Your task to perform on an android device: Show the shopping cart on ebay. Add lenovo thinkpad to the cart on ebay, then select checkout. Image 0: 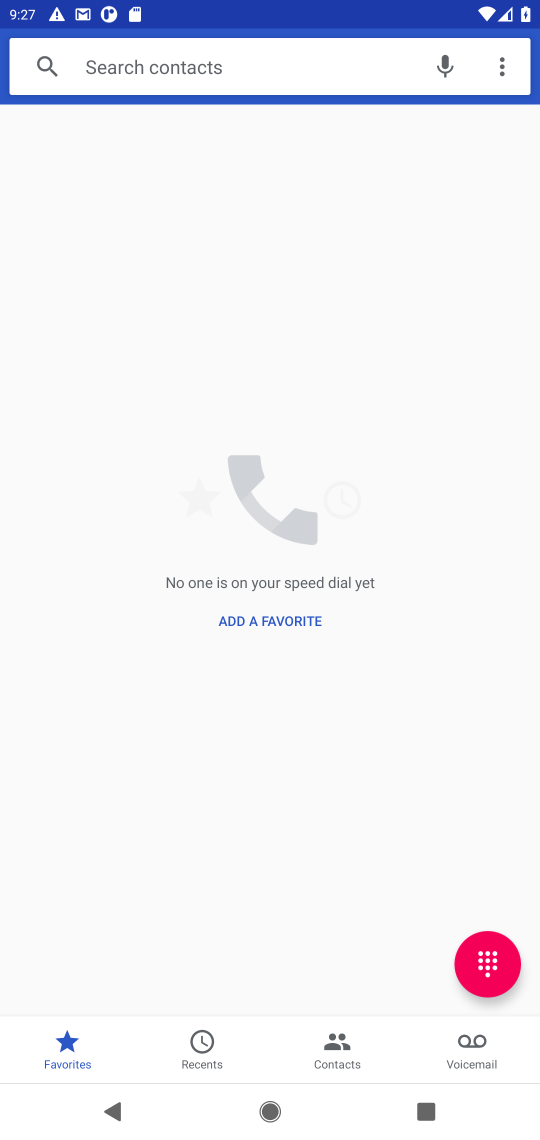
Step 0: press home button
Your task to perform on an android device: Show the shopping cart on ebay. Add lenovo thinkpad to the cart on ebay, then select checkout. Image 1: 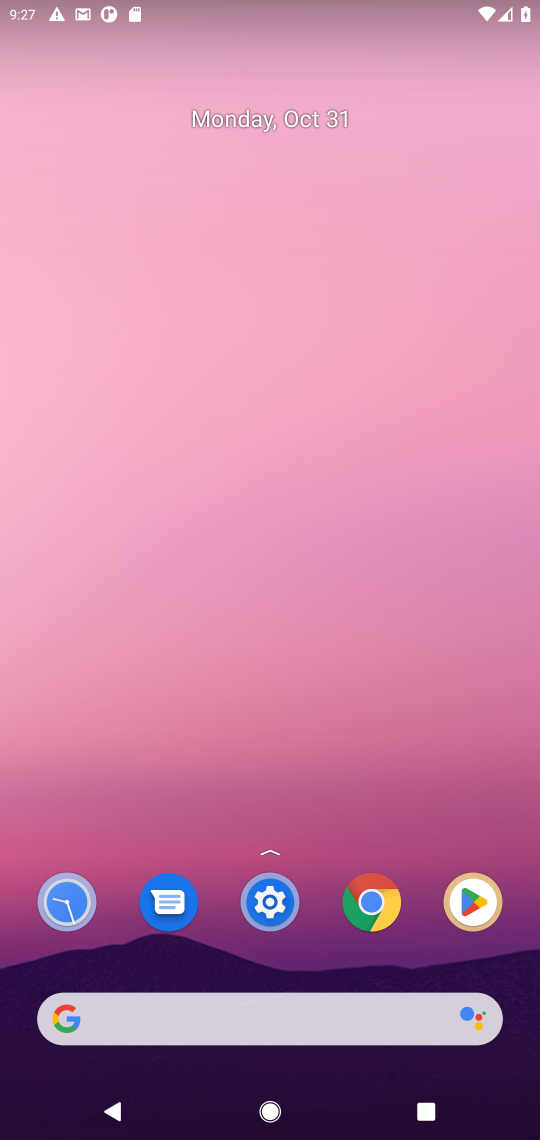
Step 1: drag from (200, 241) to (188, 174)
Your task to perform on an android device: Show the shopping cart on ebay. Add lenovo thinkpad to the cart on ebay, then select checkout. Image 2: 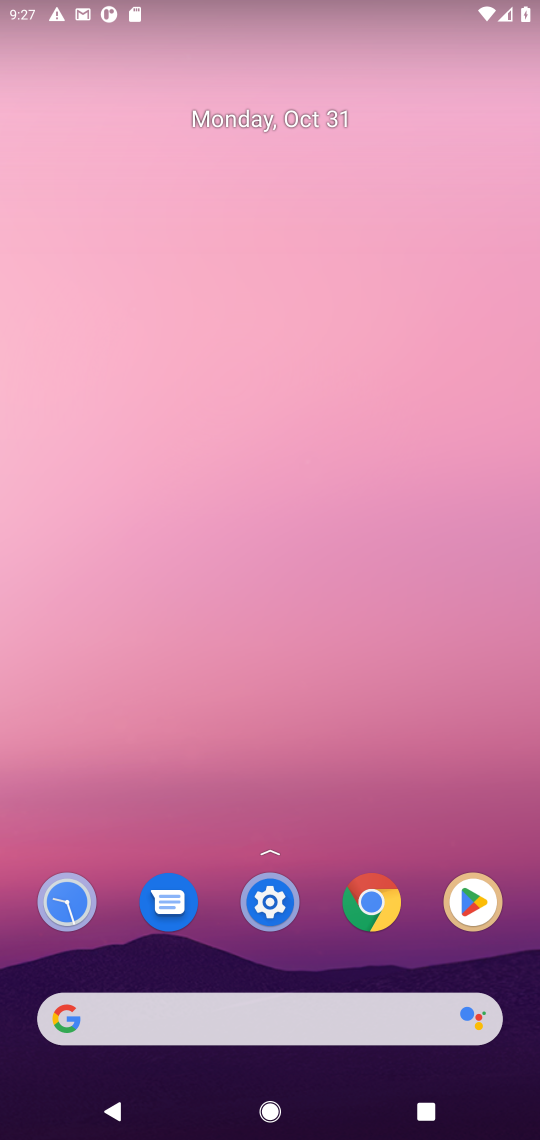
Step 2: drag from (328, 958) to (350, 147)
Your task to perform on an android device: Show the shopping cart on ebay. Add lenovo thinkpad to the cart on ebay, then select checkout. Image 3: 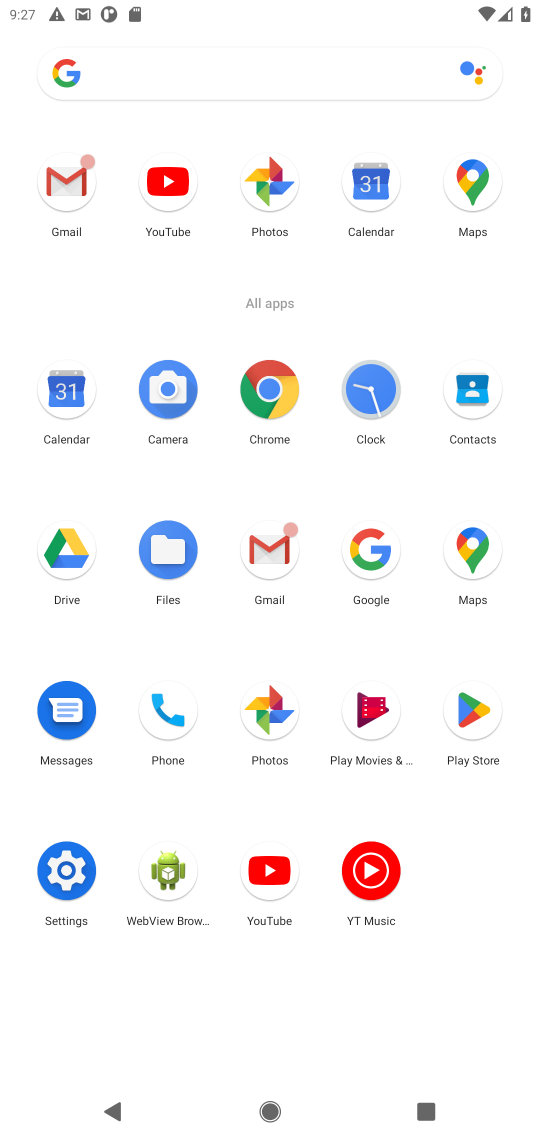
Step 3: click (267, 385)
Your task to perform on an android device: Show the shopping cart on ebay. Add lenovo thinkpad to the cart on ebay, then select checkout. Image 4: 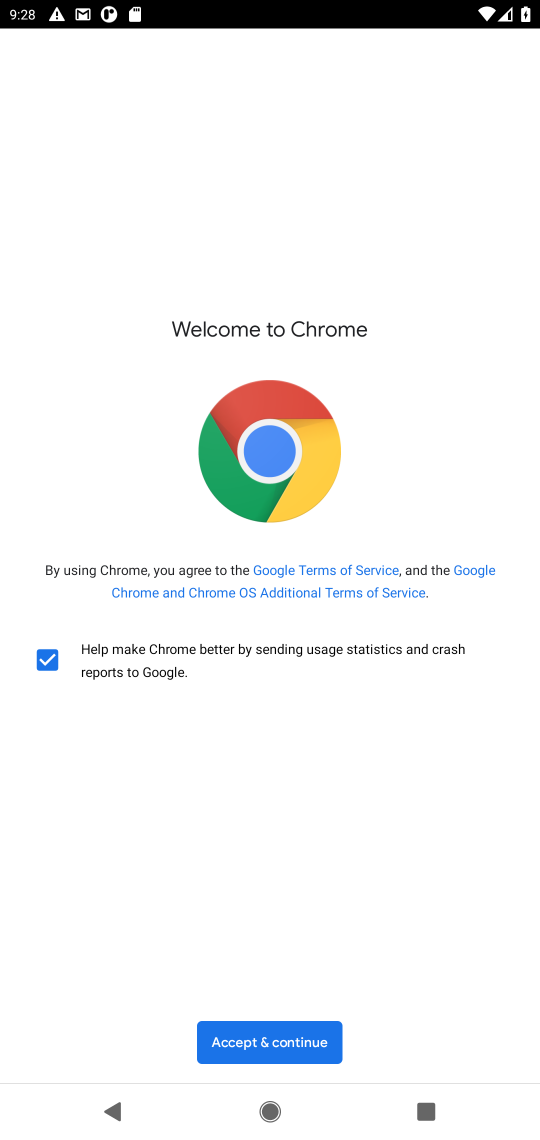
Step 4: click (306, 1039)
Your task to perform on an android device: Show the shopping cart on ebay. Add lenovo thinkpad to the cart on ebay, then select checkout. Image 5: 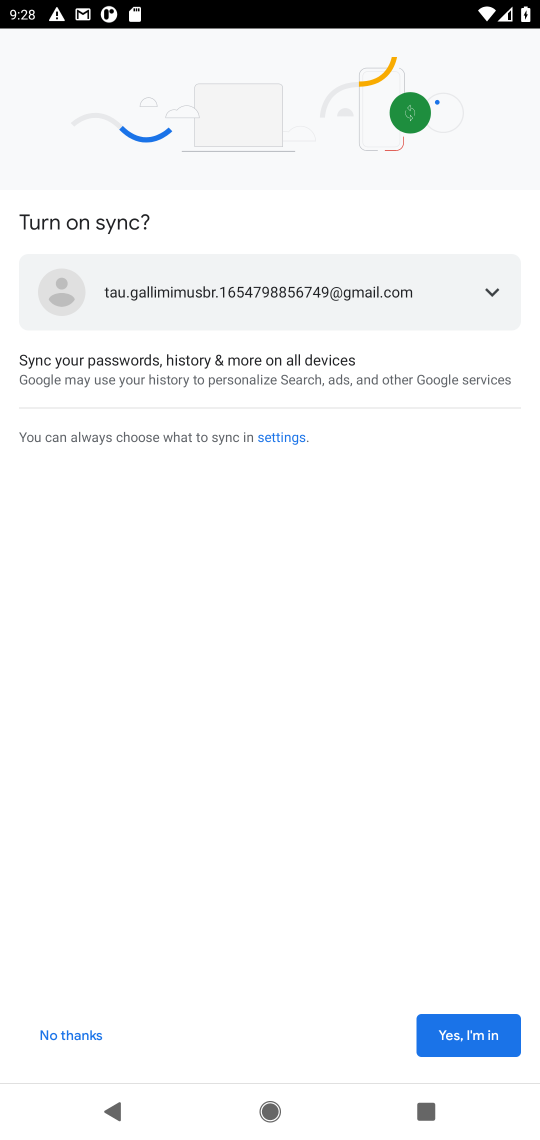
Step 5: click (507, 1039)
Your task to perform on an android device: Show the shopping cart on ebay. Add lenovo thinkpad to the cart on ebay, then select checkout. Image 6: 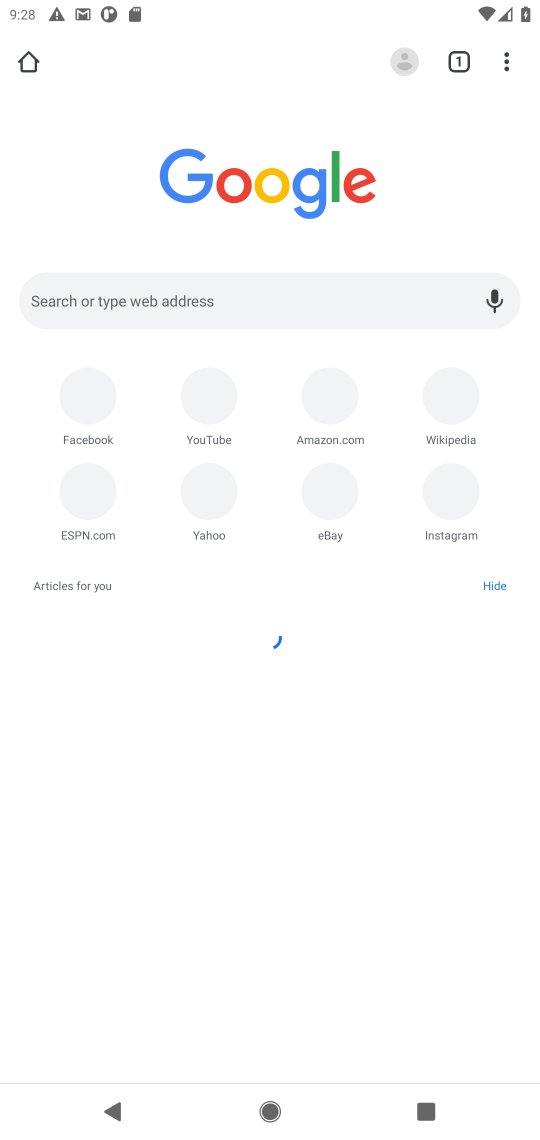
Step 6: click (292, 293)
Your task to perform on an android device: Show the shopping cart on ebay. Add lenovo thinkpad to the cart on ebay, then select checkout. Image 7: 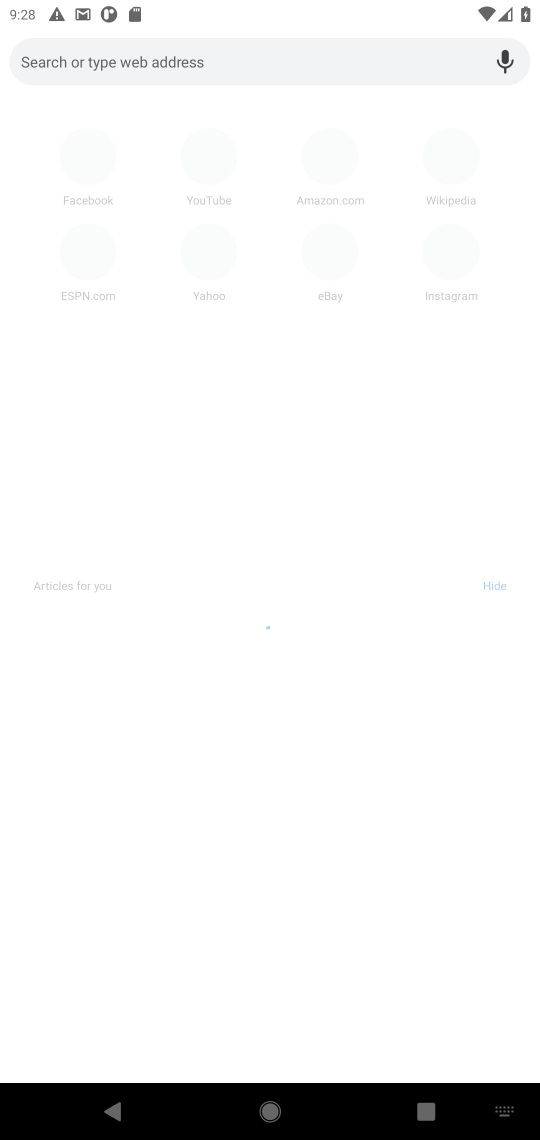
Step 7: type "ebay.com"
Your task to perform on an android device: Show the shopping cart on ebay. Add lenovo thinkpad to the cart on ebay, then select checkout. Image 8: 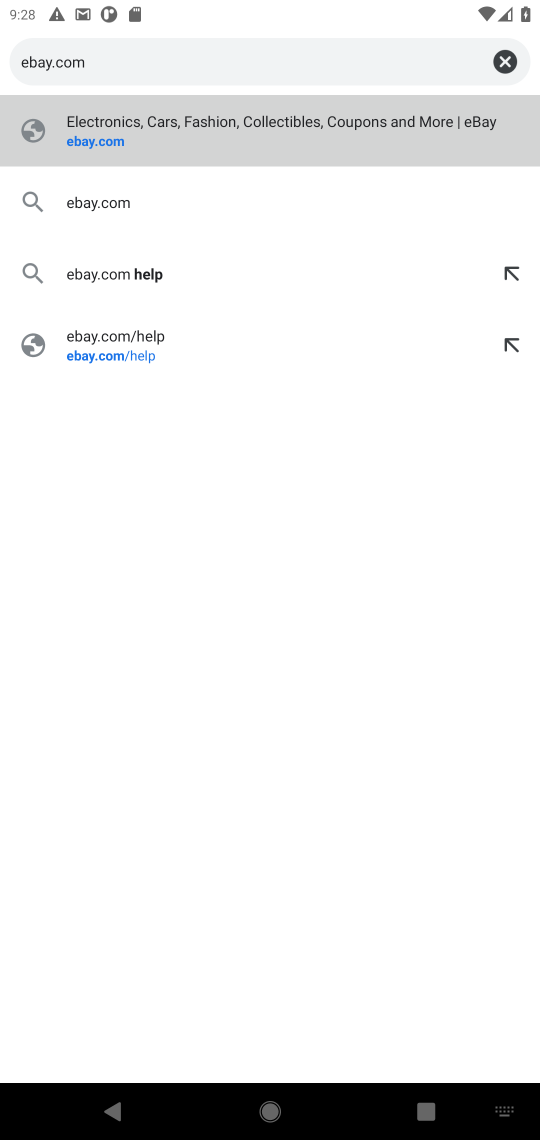
Step 8: press enter
Your task to perform on an android device: Show the shopping cart on ebay. Add lenovo thinkpad to the cart on ebay, then select checkout. Image 9: 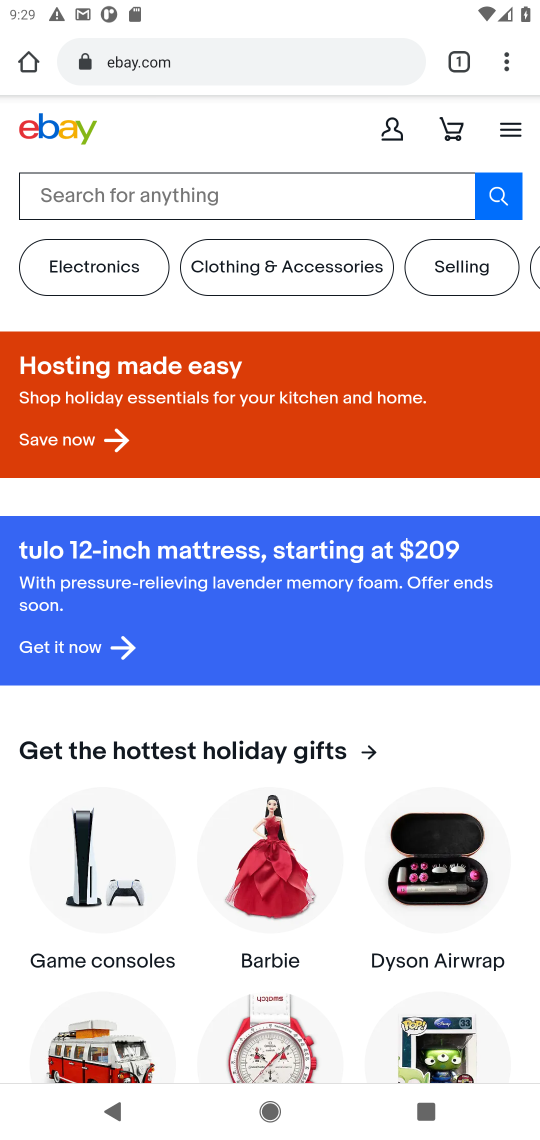
Step 9: click (206, 196)
Your task to perform on an android device: Show the shopping cart on ebay. Add lenovo thinkpad to the cart on ebay, then select checkout. Image 10: 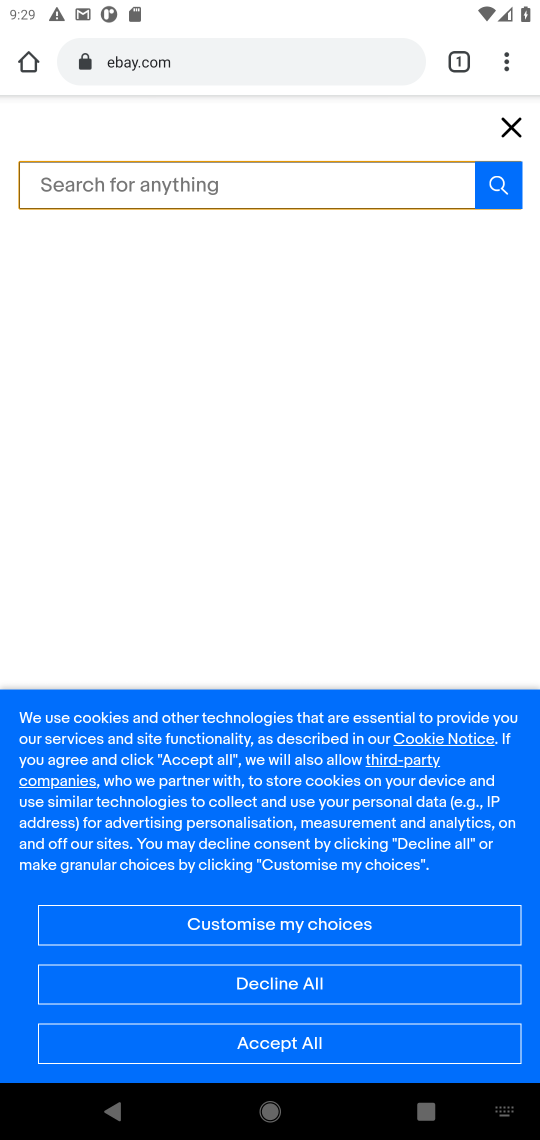
Step 10: click (494, 125)
Your task to perform on an android device: Show the shopping cart on ebay. Add lenovo thinkpad to the cart on ebay, then select checkout. Image 11: 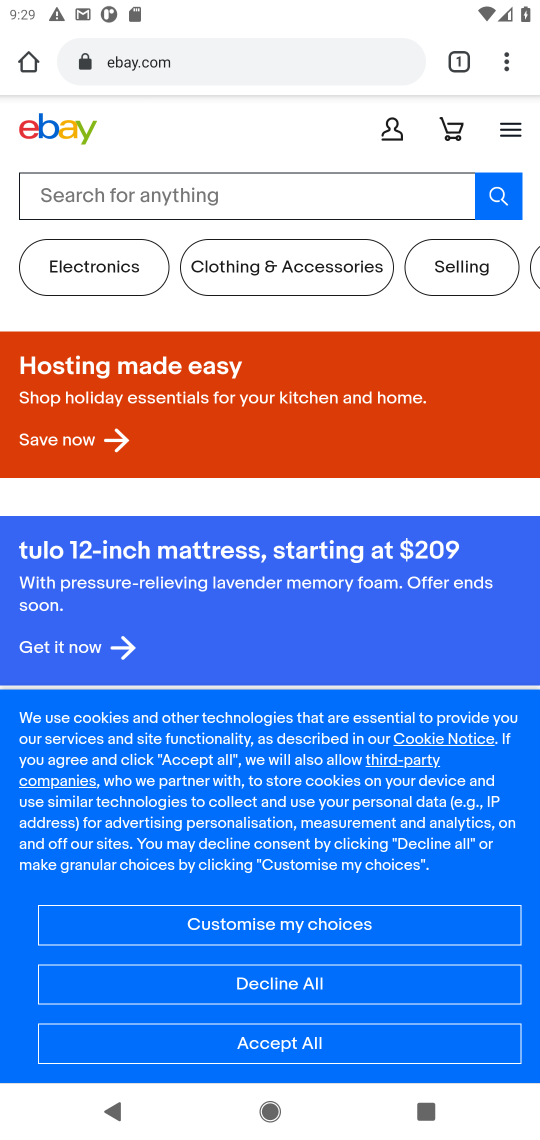
Step 11: click (448, 127)
Your task to perform on an android device: Show the shopping cart on ebay. Add lenovo thinkpad to the cart on ebay, then select checkout. Image 12: 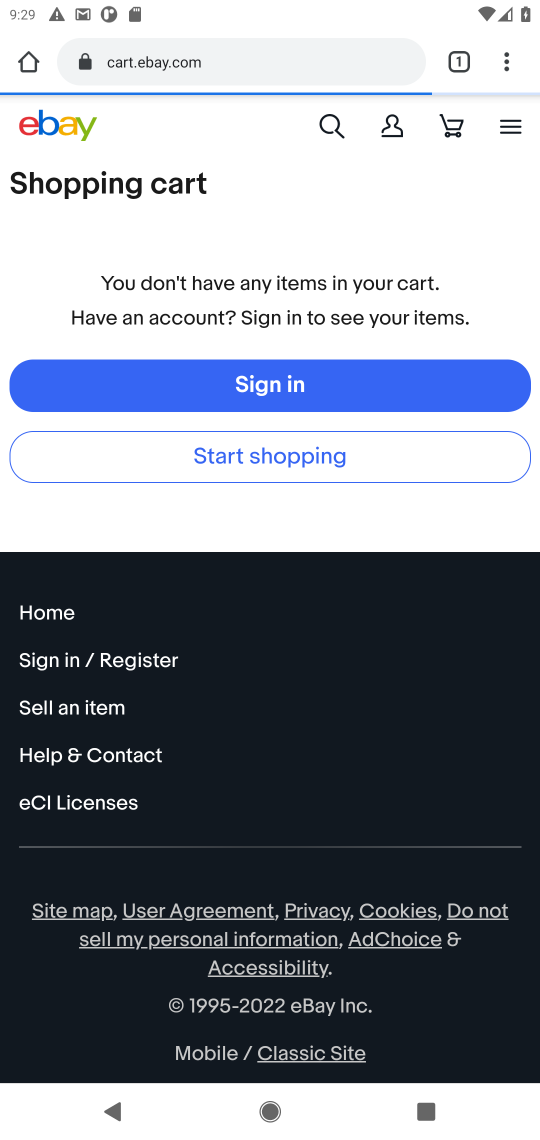
Step 12: click (313, 462)
Your task to perform on an android device: Show the shopping cart on ebay. Add lenovo thinkpad to the cart on ebay, then select checkout. Image 13: 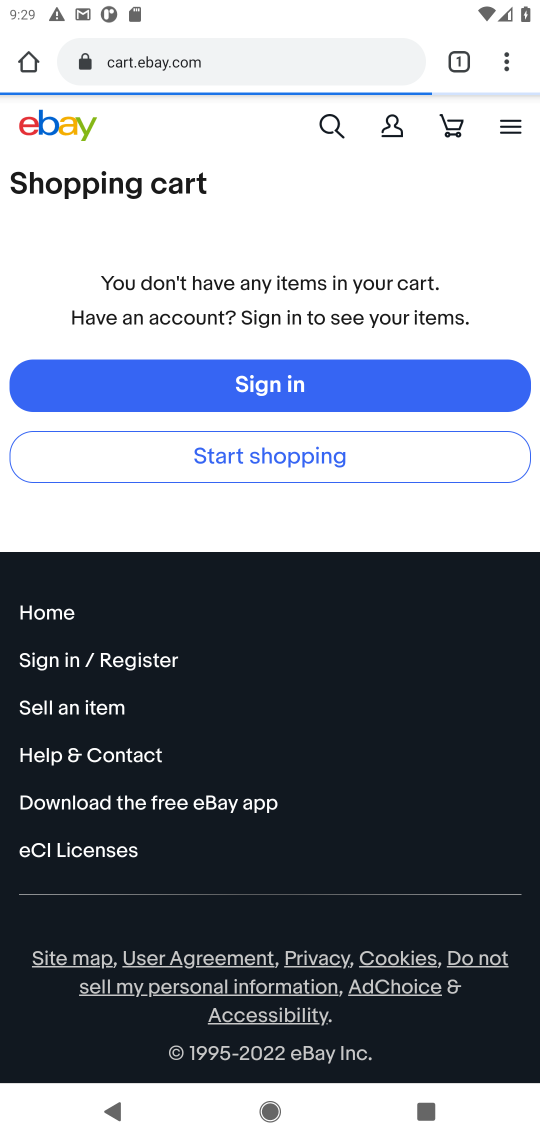
Step 13: click (350, 462)
Your task to perform on an android device: Show the shopping cart on ebay. Add lenovo thinkpad to the cart on ebay, then select checkout. Image 14: 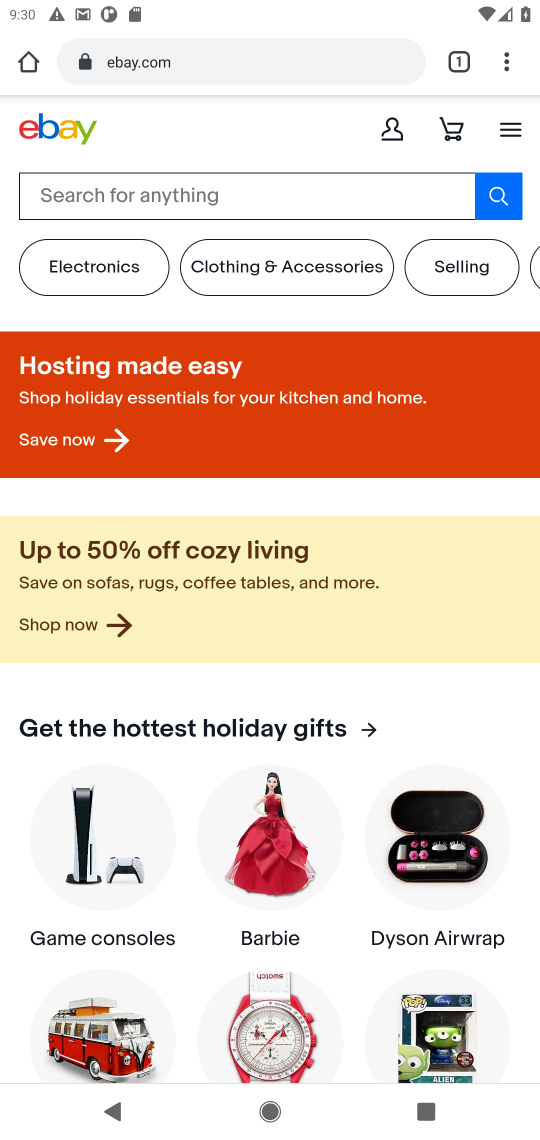
Step 14: click (264, 196)
Your task to perform on an android device: Show the shopping cart on ebay. Add lenovo thinkpad to the cart on ebay, then select checkout. Image 15: 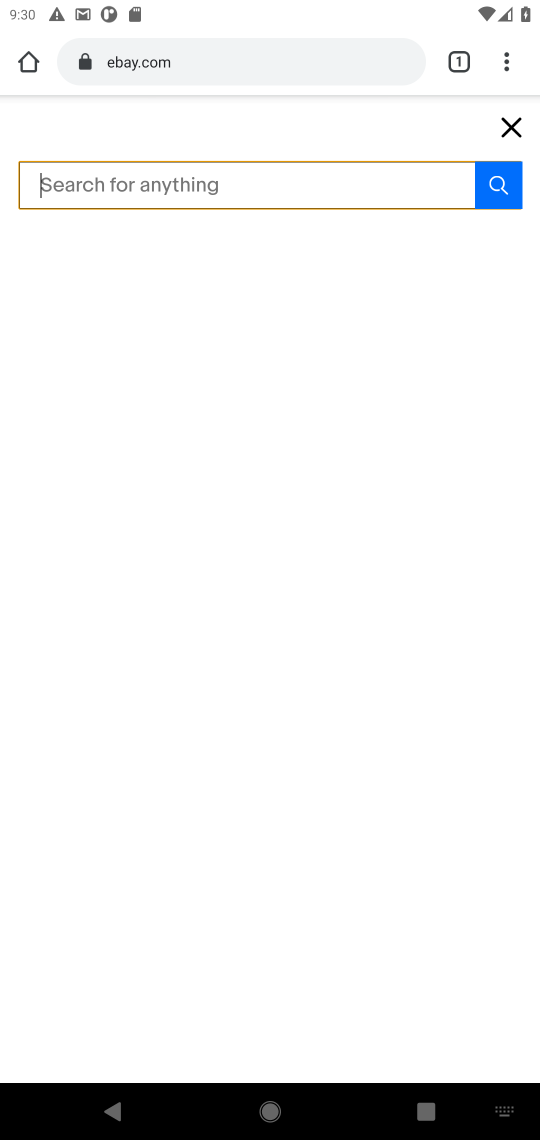
Step 15: type "lenovo thinkpad"
Your task to perform on an android device: Show the shopping cart on ebay. Add lenovo thinkpad to the cart on ebay, then select checkout. Image 16: 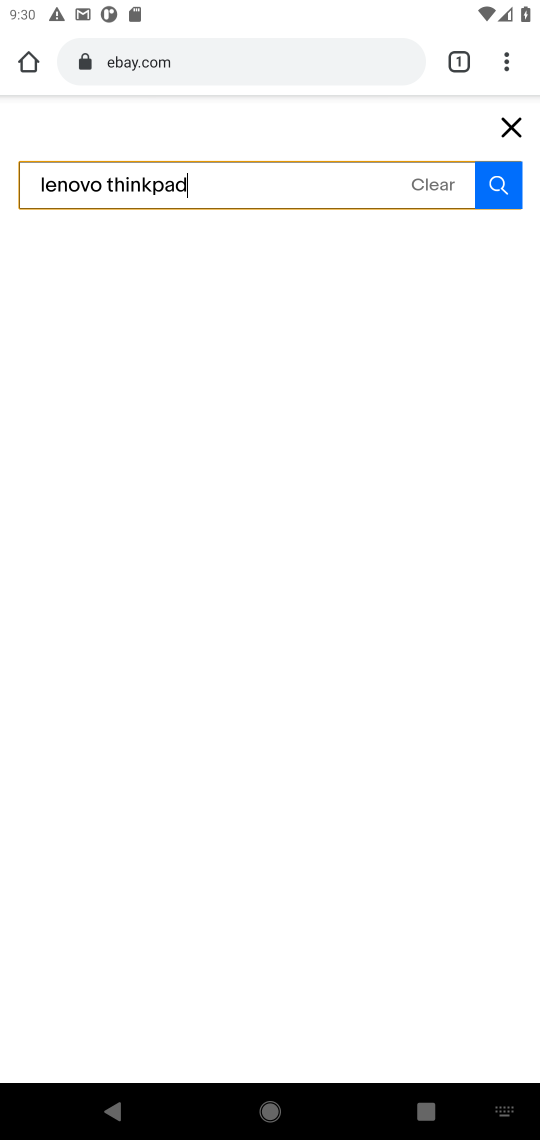
Step 16: press enter
Your task to perform on an android device: Show the shopping cart on ebay. Add lenovo thinkpad to the cart on ebay, then select checkout. Image 17: 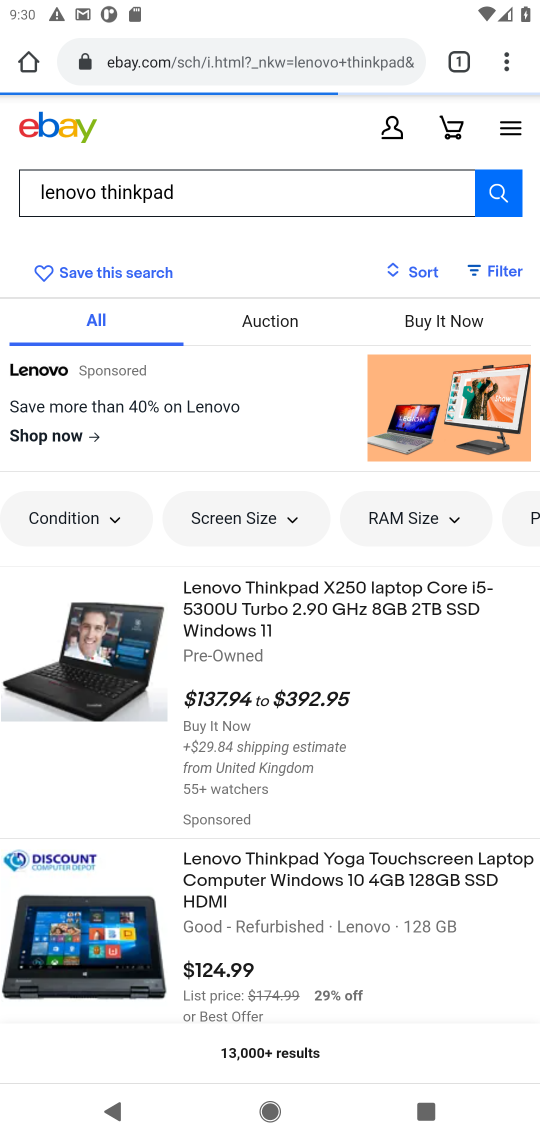
Step 17: drag from (391, 761) to (379, 375)
Your task to perform on an android device: Show the shopping cart on ebay. Add lenovo thinkpad to the cart on ebay, then select checkout. Image 18: 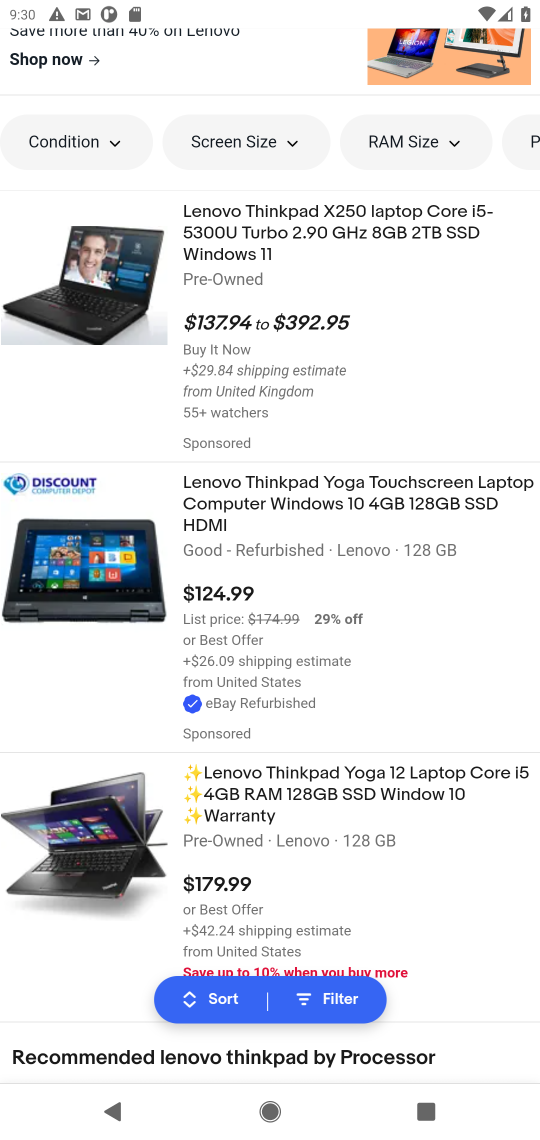
Step 18: click (90, 321)
Your task to perform on an android device: Show the shopping cart on ebay. Add lenovo thinkpad to the cart on ebay, then select checkout. Image 19: 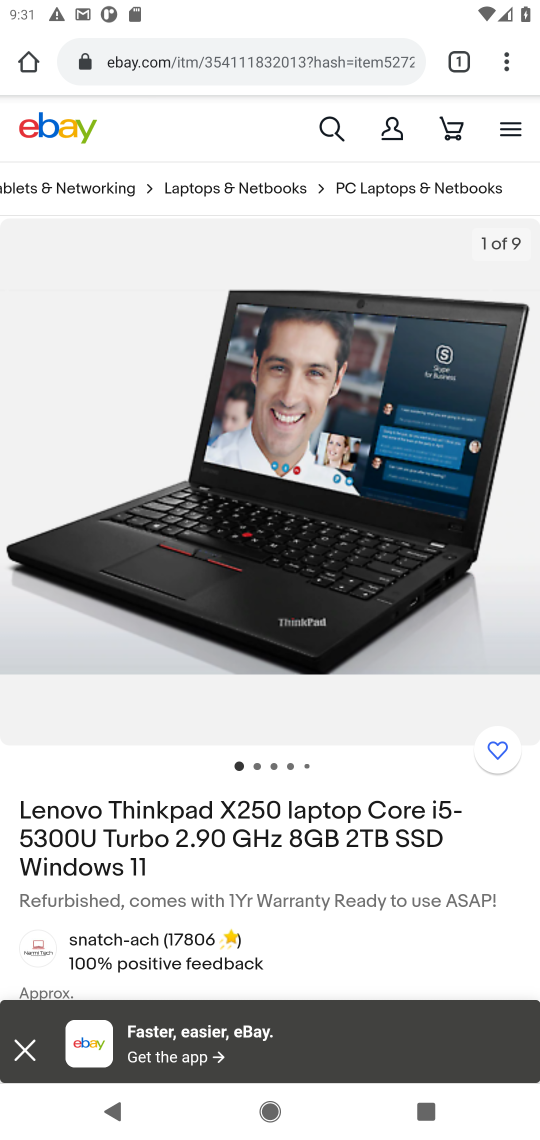
Step 19: drag from (342, 711) to (383, 84)
Your task to perform on an android device: Show the shopping cart on ebay. Add lenovo thinkpad to the cart on ebay, then select checkout. Image 20: 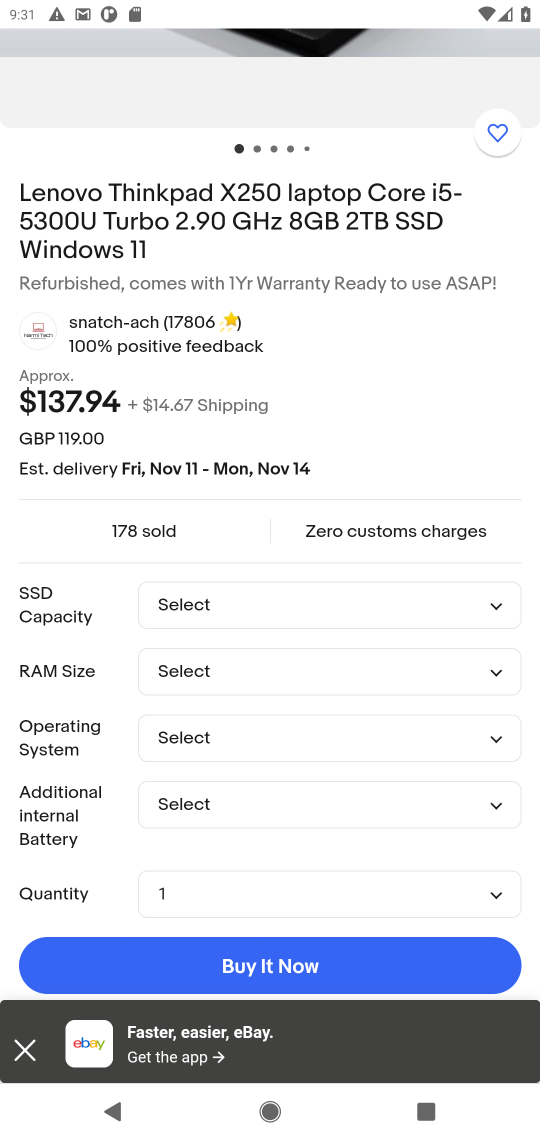
Step 20: drag from (364, 856) to (364, 426)
Your task to perform on an android device: Show the shopping cart on ebay. Add lenovo thinkpad to the cart on ebay, then select checkout. Image 21: 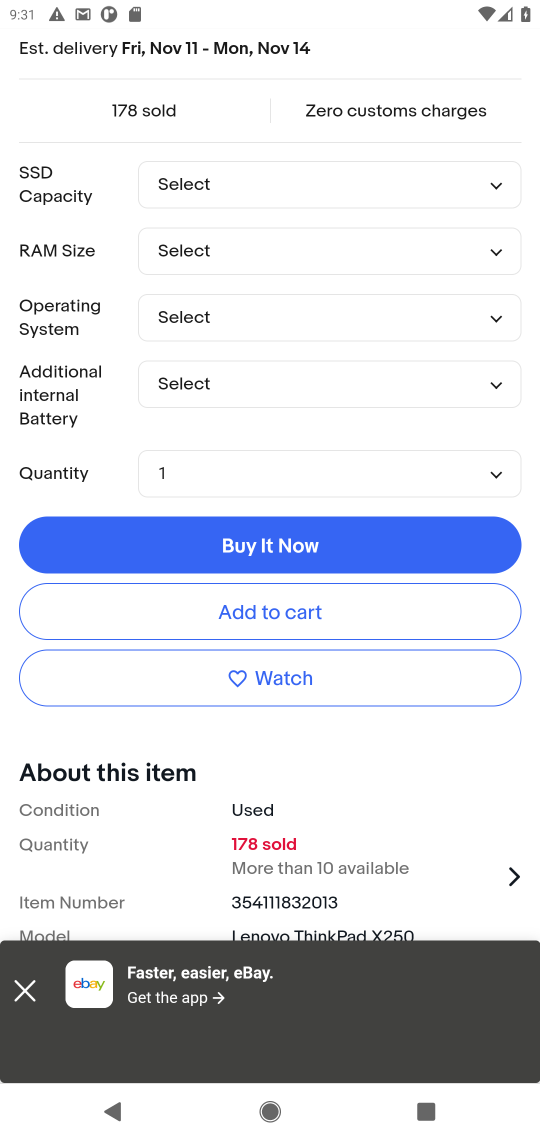
Step 21: click (319, 615)
Your task to perform on an android device: Show the shopping cart on ebay. Add lenovo thinkpad to the cart on ebay, then select checkout. Image 22: 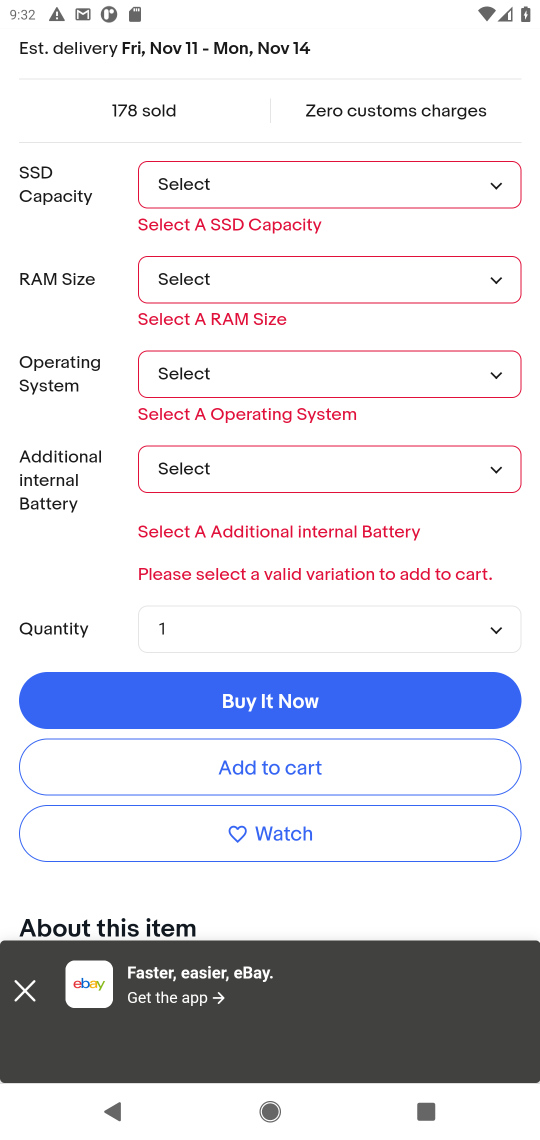
Step 22: click (449, 175)
Your task to perform on an android device: Show the shopping cart on ebay. Add lenovo thinkpad to the cart on ebay, then select checkout. Image 23: 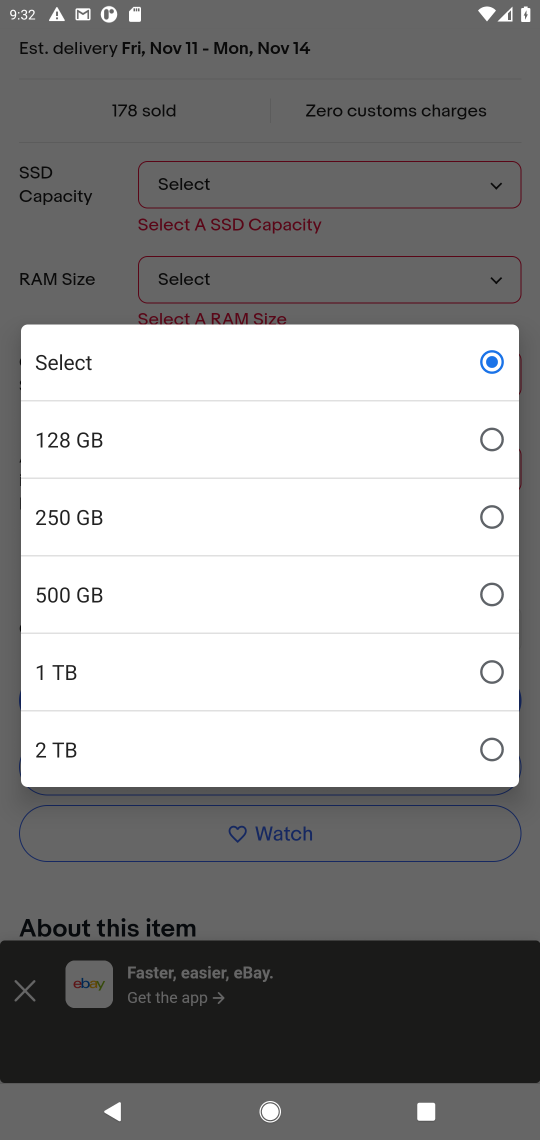
Step 23: click (243, 442)
Your task to perform on an android device: Show the shopping cart on ebay. Add lenovo thinkpad to the cart on ebay, then select checkout. Image 24: 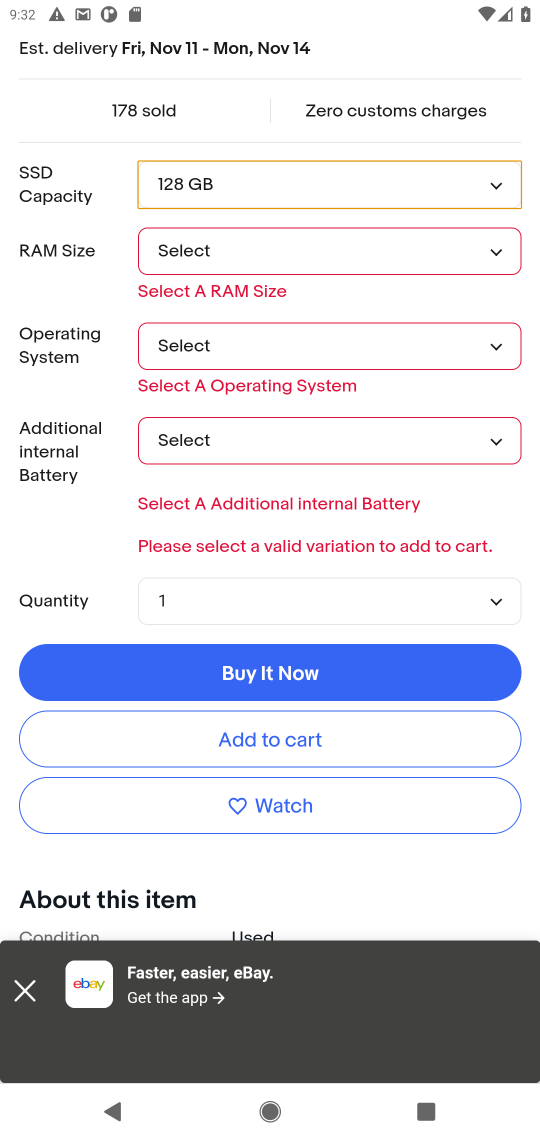
Step 24: click (390, 270)
Your task to perform on an android device: Show the shopping cart on ebay. Add lenovo thinkpad to the cart on ebay, then select checkout. Image 25: 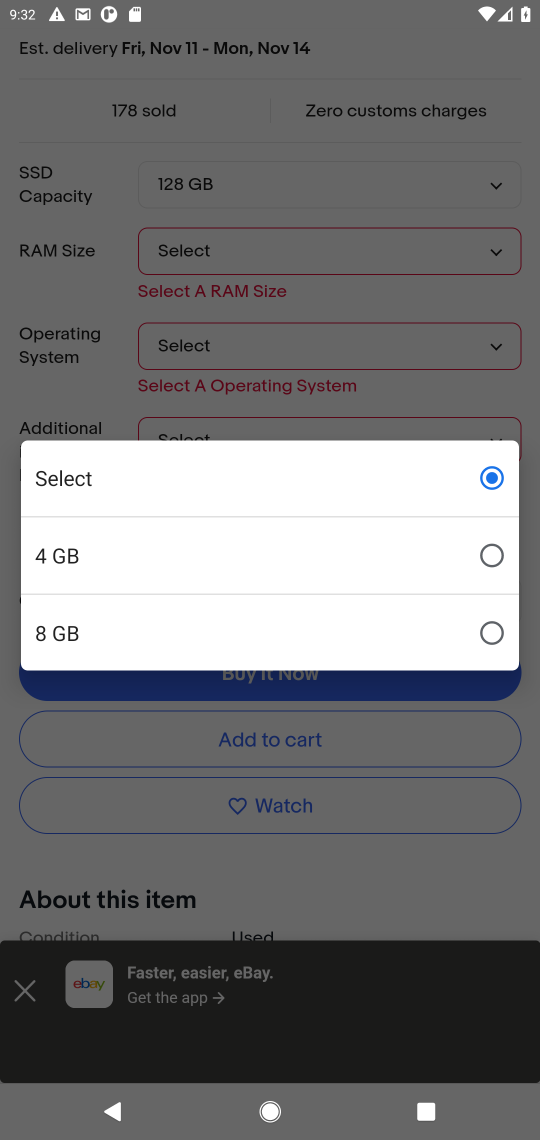
Step 25: click (230, 556)
Your task to perform on an android device: Show the shopping cart on ebay. Add lenovo thinkpad to the cart on ebay, then select checkout. Image 26: 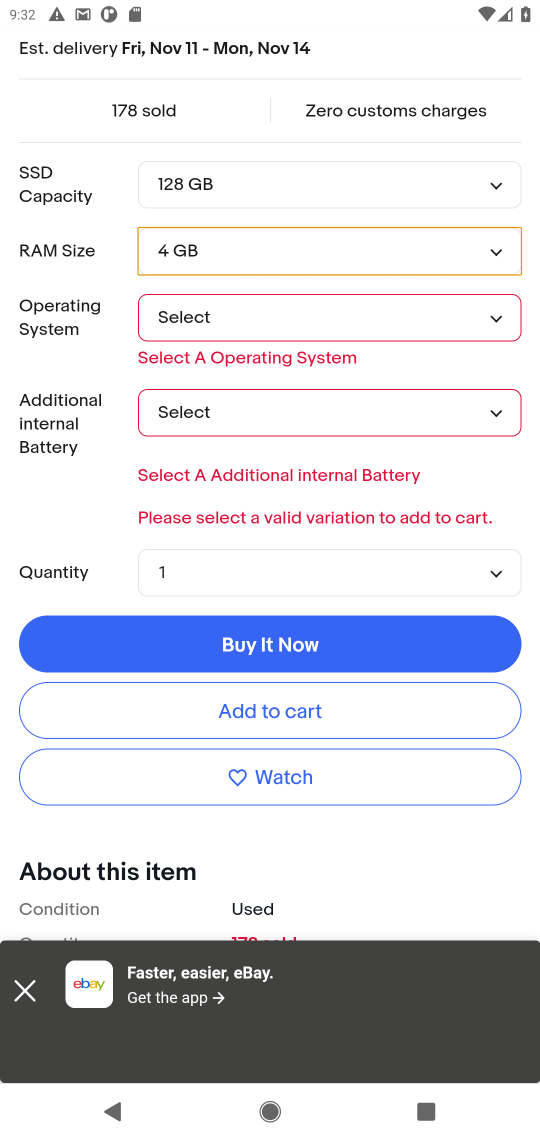
Step 26: click (396, 333)
Your task to perform on an android device: Show the shopping cart on ebay. Add lenovo thinkpad to the cart on ebay, then select checkout. Image 27: 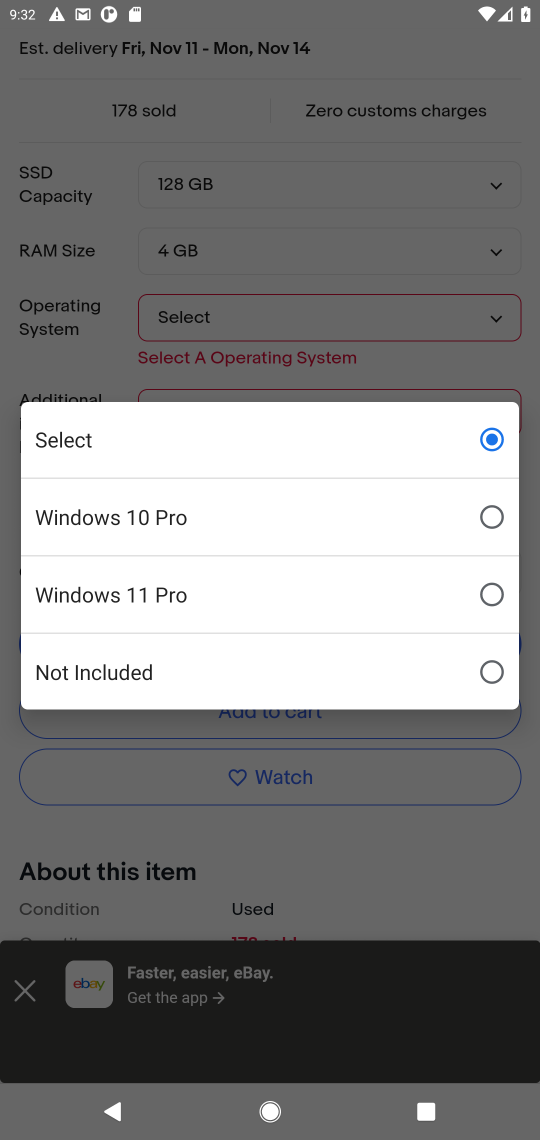
Step 27: click (268, 523)
Your task to perform on an android device: Show the shopping cart on ebay. Add lenovo thinkpad to the cart on ebay, then select checkout. Image 28: 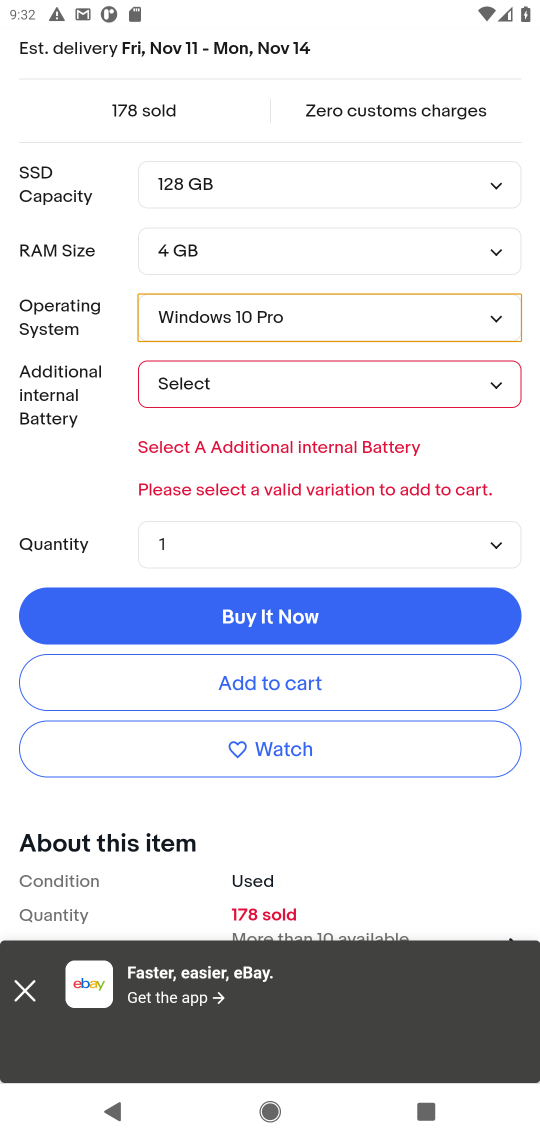
Step 28: click (383, 383)
Your task to perform on an android device: Show the shopping cart on ebay. Add lenovo thinkpad to the cart on ebay, then select checkout. Image 29: 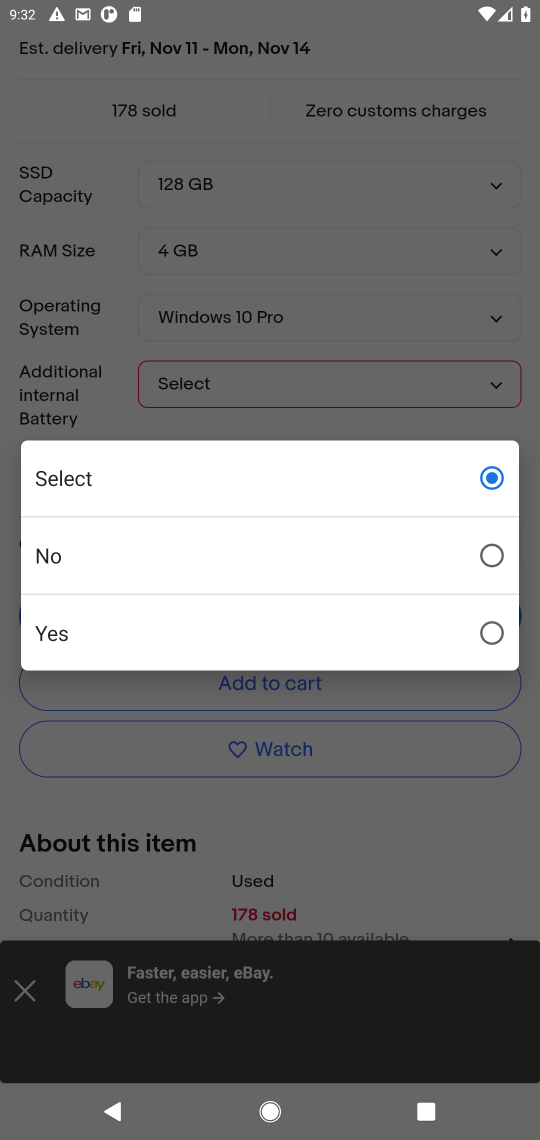
Step 29: click (297, 555)
Your task to perform on an android device: Show the shopping cart on ebay. Add lenovo thinkpad to the cart on ebay, then select checkout. Image 30: 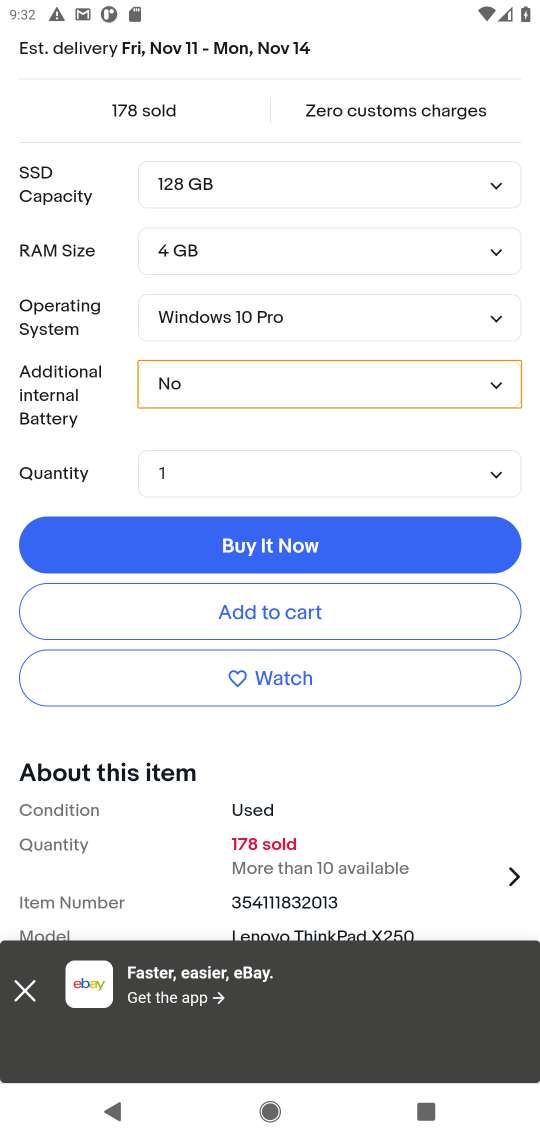
Step 30: click (346, 608)
Your task to perform on an android device: Show the shopping cart on ebay. Add lenovo thinkpad to the cart on ebay, then select checkout. Image 31: 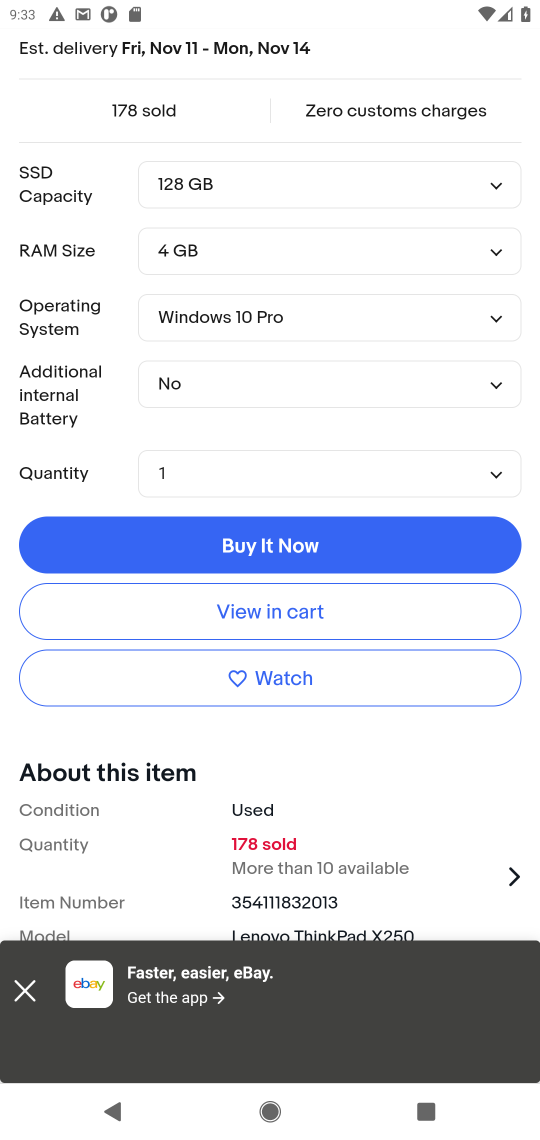
Step 31: click (438, 599)
Your task to perform on an android device: Show the shopping cart on ebay. Add lenovo thinkpad to the cart on ebay, then select checkout. Image 32: 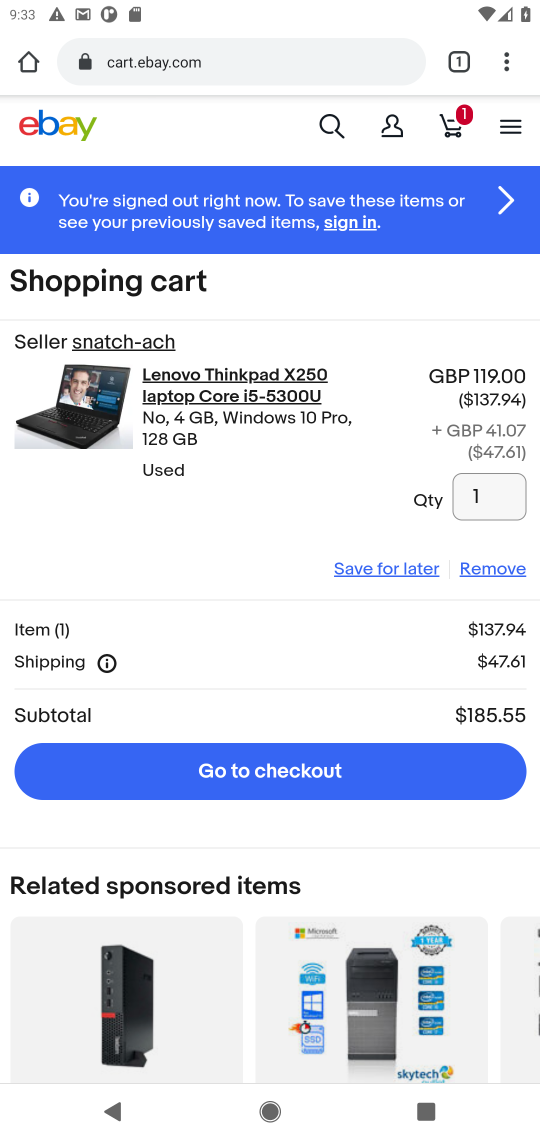
Step 32: click (327, 788)
Your task to perform on an android device: Show the shopping cart on ebay. Add lenovo thinkpad to the cart on ebay, then select checkout. Image 33: 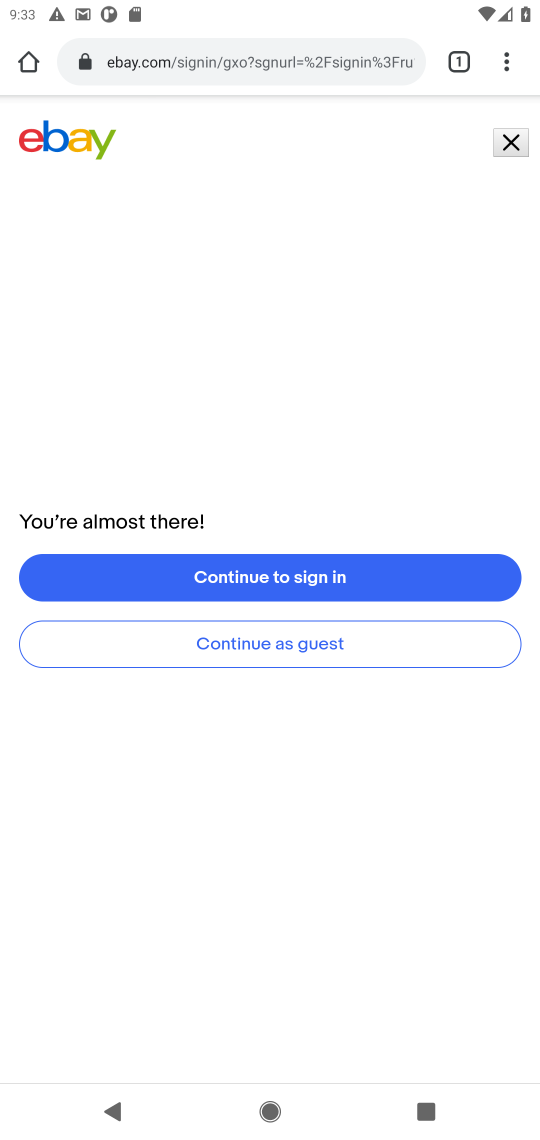
Step 33: task complete